Your task to perform on an android device: Set the phone to "Do not disturb". Image 0: 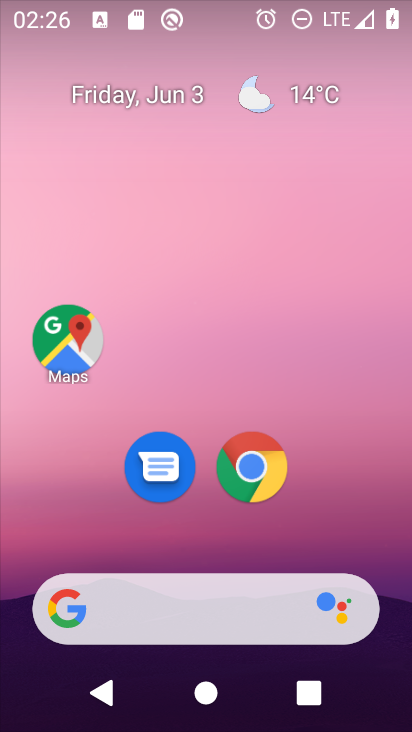
Step 0: drag from (394, 610) to (317, 125)
Your task to perform on an android device: Set the phone to "Do not disturb". Image 1: 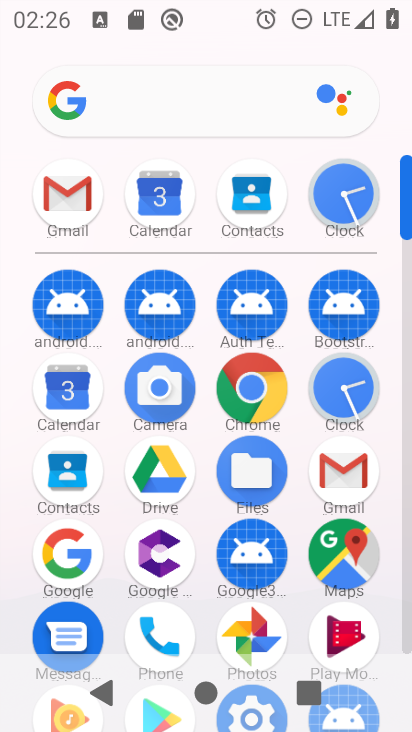
Step 1: click (405, 636)
Your task to perform on an android device: Set the phone to "Do not disturb". Image 2: 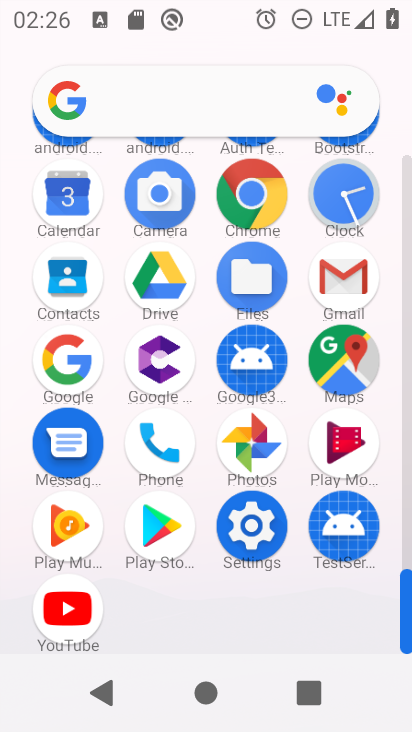
Step 2: click (248, 523)
Your task to perform on an android device: Set the phone to "Do not disturb". Image 3: 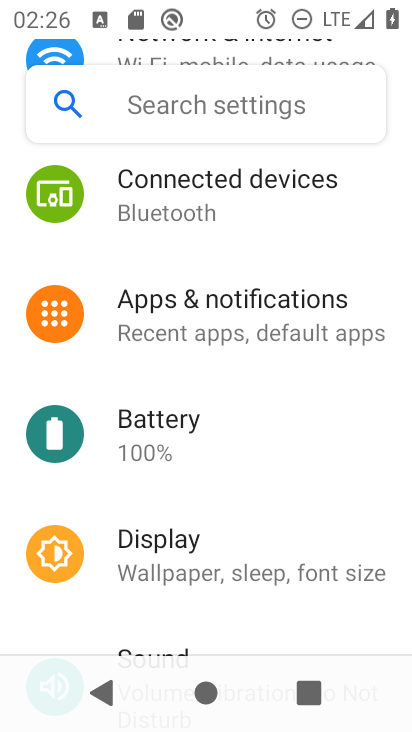
Step 3: drag from (290, 535) to (282, 235)
Your task to perform on an android device: Set the phone to "Do not disturb". Image 4: 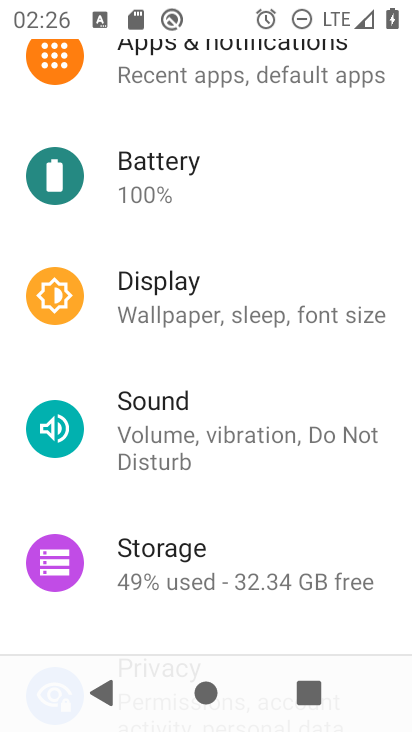
Step 4: click (162, 436)
Your task to perform on an android device: Set the phone to "Do not disturb". Image 5: 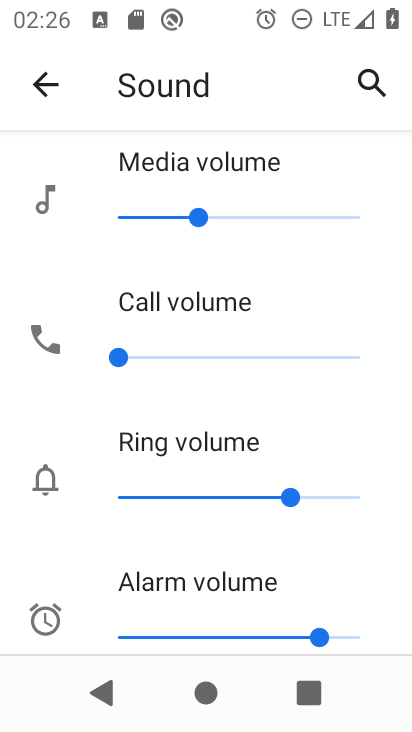
Step 5: drag from (298, 622) to (307, 152)
Your task to perform on an android device: Set the phone to "Do not disturb". Image 6: 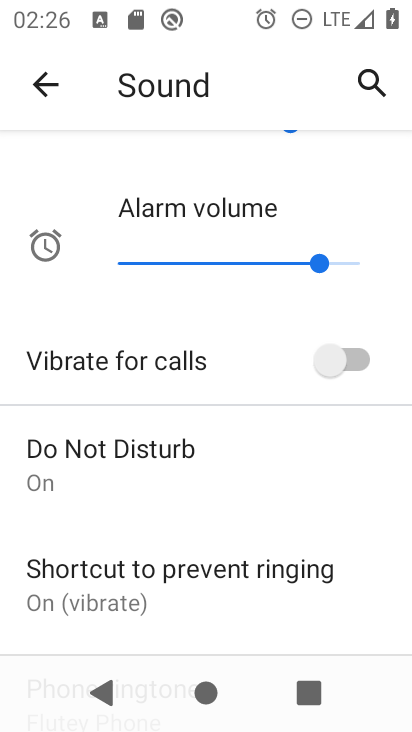
Step 6: click (52, 445)
Your task to perform on an android device: Set the phone to "Do not disturb". Image 7: 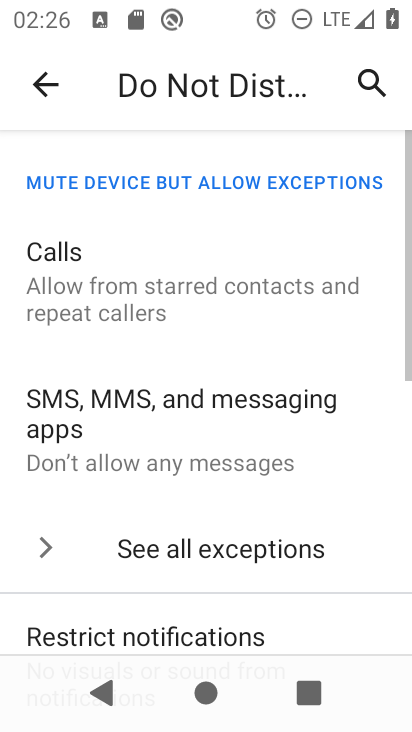
Step 7: task complete